Your task to perform on an android device: change text size in settings app Image 0: 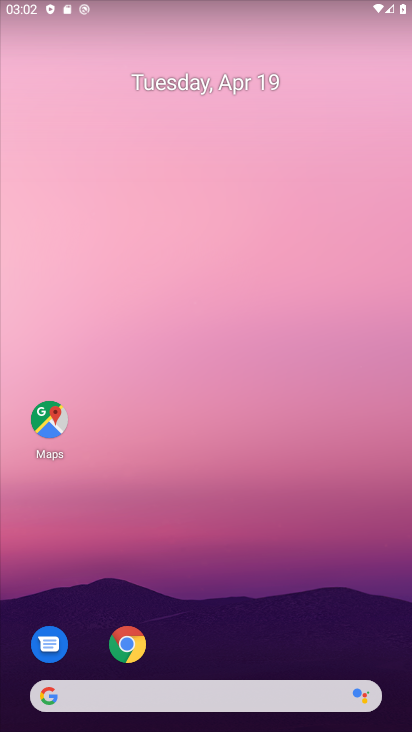
Step 0: drag from (297, 631) to (228, 130)
Your task to perform on an android device: change text size in settings app Image 1: 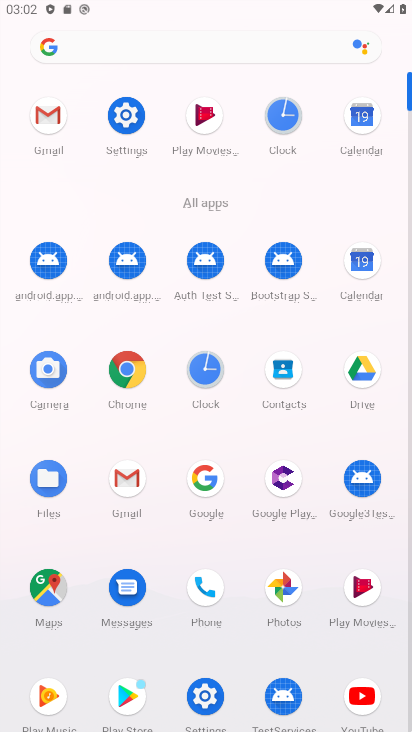
Step 1: click (202, 697)
Your task to perform on an android device: change text size in settings app Image 2: 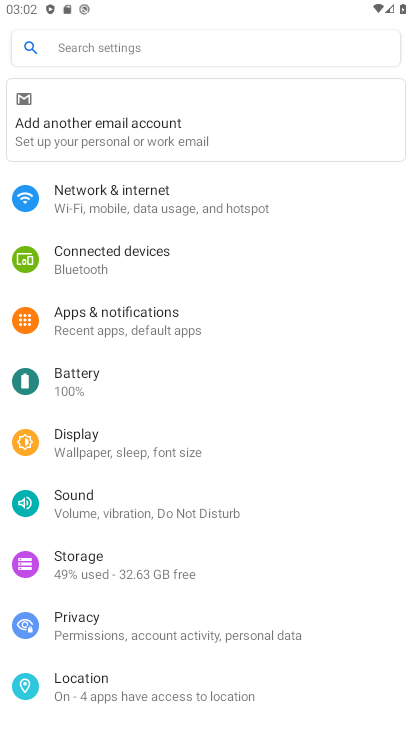
Step 2: click (100, 443)
Your task to perform on an android device: change text size in settings app Image 3: 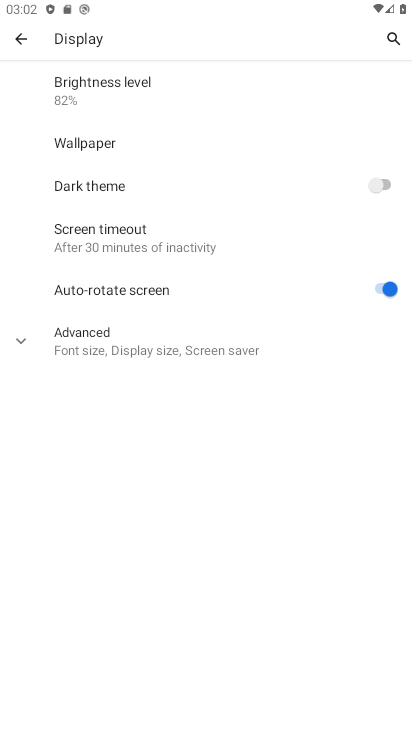
Step 3: click (28, 336)
Your task to perform on an android device: change text size in settings app Image 4: 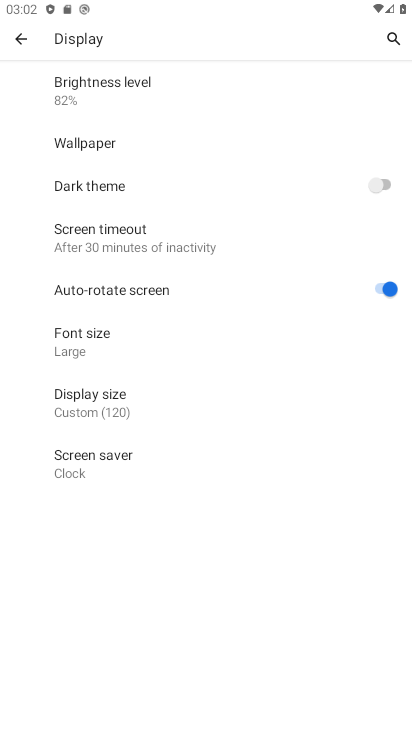
Step 4: click (78, 336)
Your task to perform on an android device: change text size in settings app Image 5: 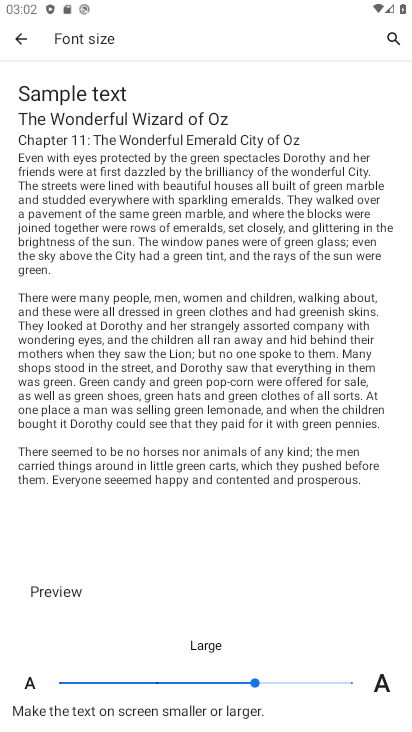
Step 5: click (163, 681)
Your task to perform on an android device: change text size in settings app Image 6: 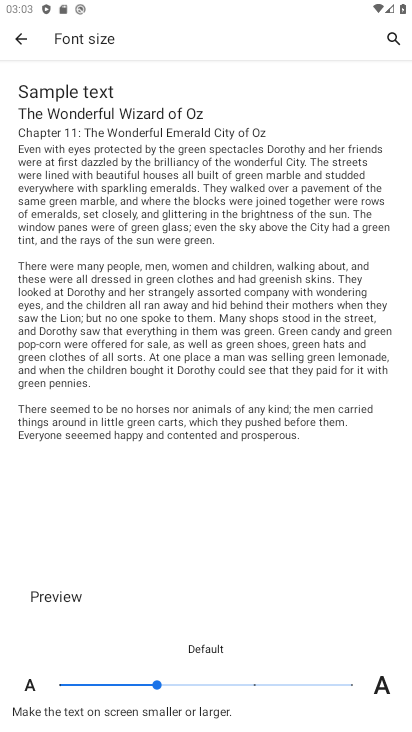
Step 6: task complete